Your task to perform on an android device: Open Google Maps and go to "Timeline" Image 0: 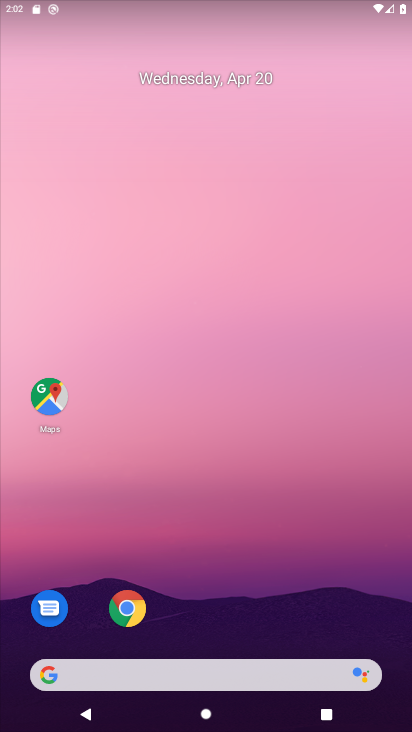
Step 0: click (169, 3)
Your task to perform on an android device: Open Google Maps and go to "Timeline" Image 1: 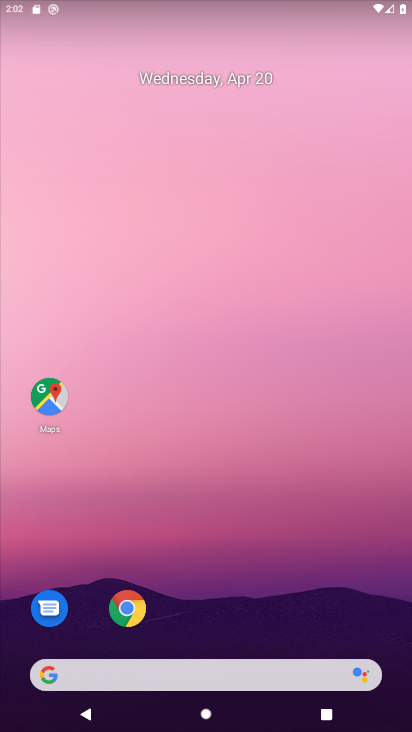
Step 1: drag from (273, 596) to (182, 47)
Your task to perform on an android device: Open Google Maps and go to "Timeline" Image 2: 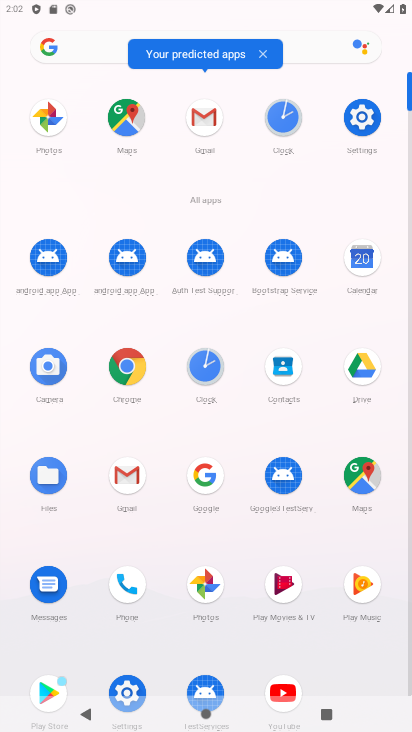
Step 2: click (371, 471)
Your task to perform on an android device: Open Google Maps and go to "Timeline" Image 3: 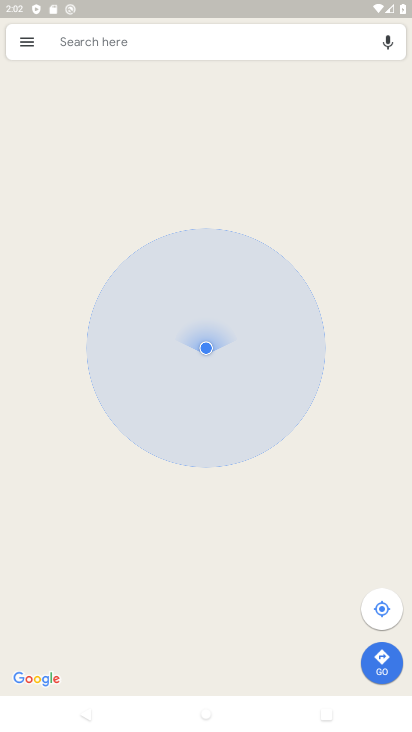
Step 3: click (20, 40)
Your task to perform on an android device: Open Google Maps and go to "Timeline" Image 4: 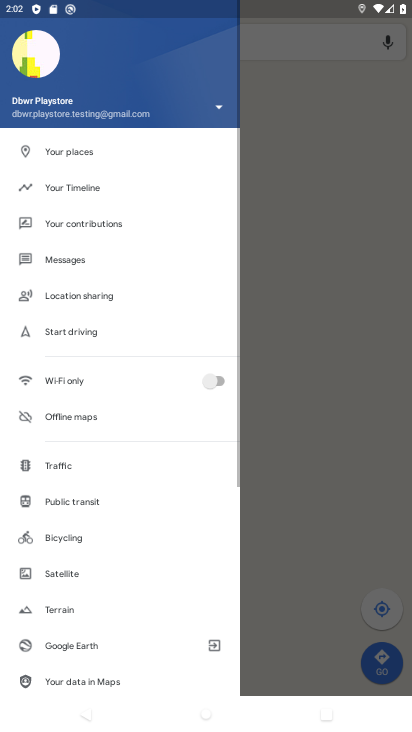
Step 4: click (66, 190)
Your task to perform on an android device: Open Google Maps and go to "Timeline" Image 5: 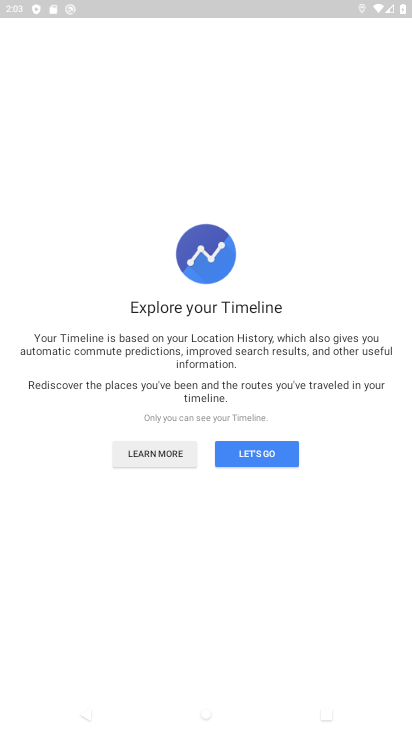
Step 5: click (237, 452)
Your task to perform on an android device: Open Google Maps and go to "Timeline" Image 6: 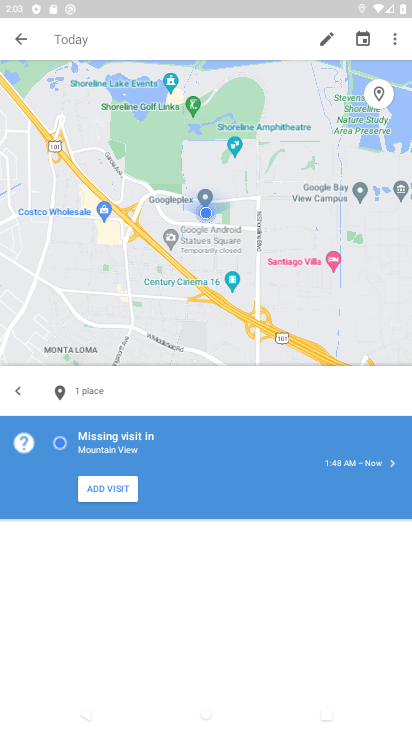
Step 6: task complete